Your task to perform on an android device: turn off sleep mode Image 0: 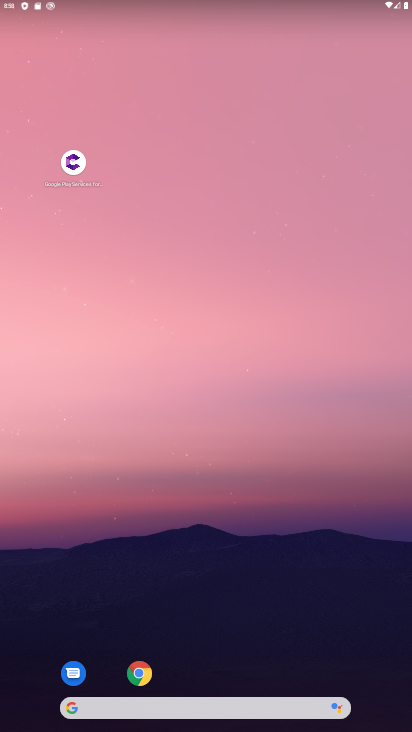
Step 0: drag from (300, 574) to (208, 62)
Your task to perform on an android device: turn off sleep mode Image 1: 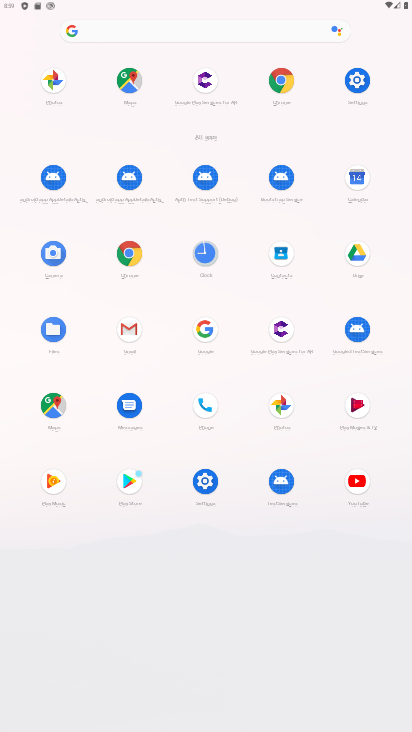
Step 1: click (353, 69)
Your task to perform on an android device: turn off sleep mode Image 2: 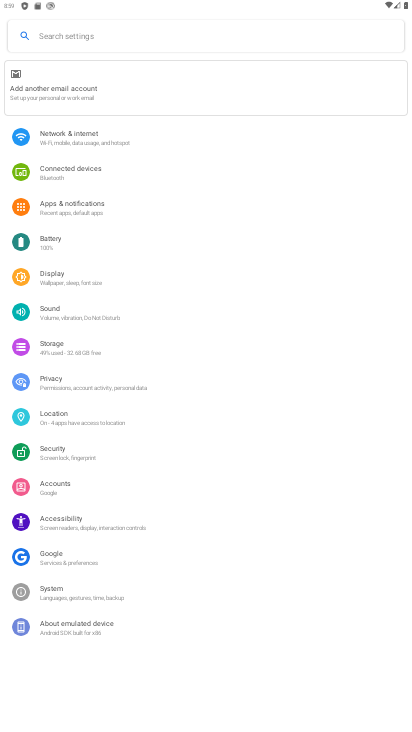
Step 2: click (60, 270)
Your task to perform on an android device: turn off sleep mode Image 3: 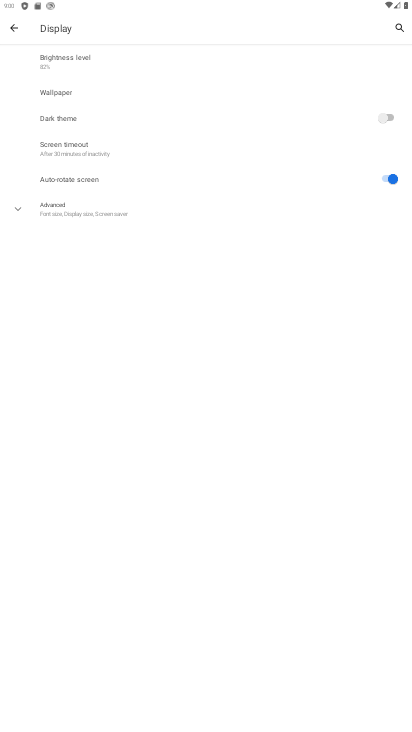
Step 3: task complete